Your task to perform on an android device: make emails show in primary in the gmail app Image 0: 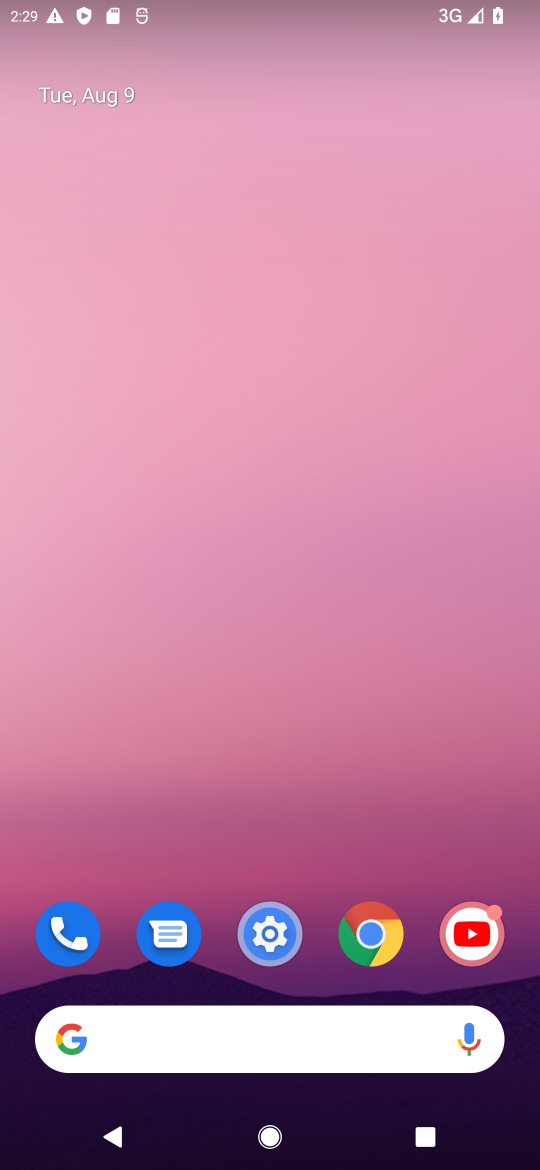
Step 0: drag from (322, 993) to (327, 95)
Your task to perform on an android device: make emails show in primary in the gmail app Image 1: 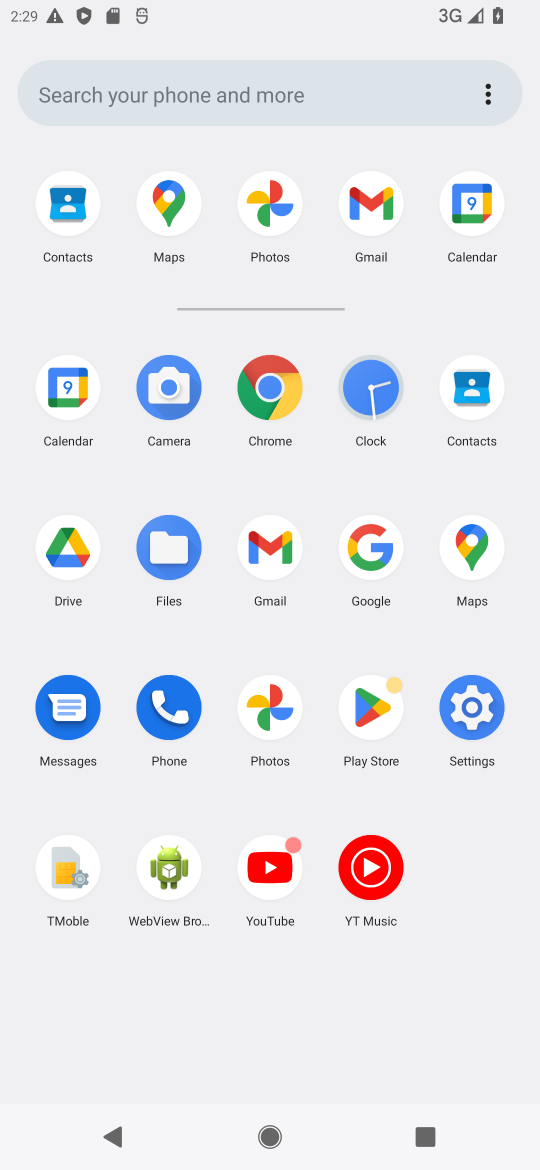
Step 1: click (295, 592)
Your task to perform on an android device: make emails show in primary in the gmail app Image 2: 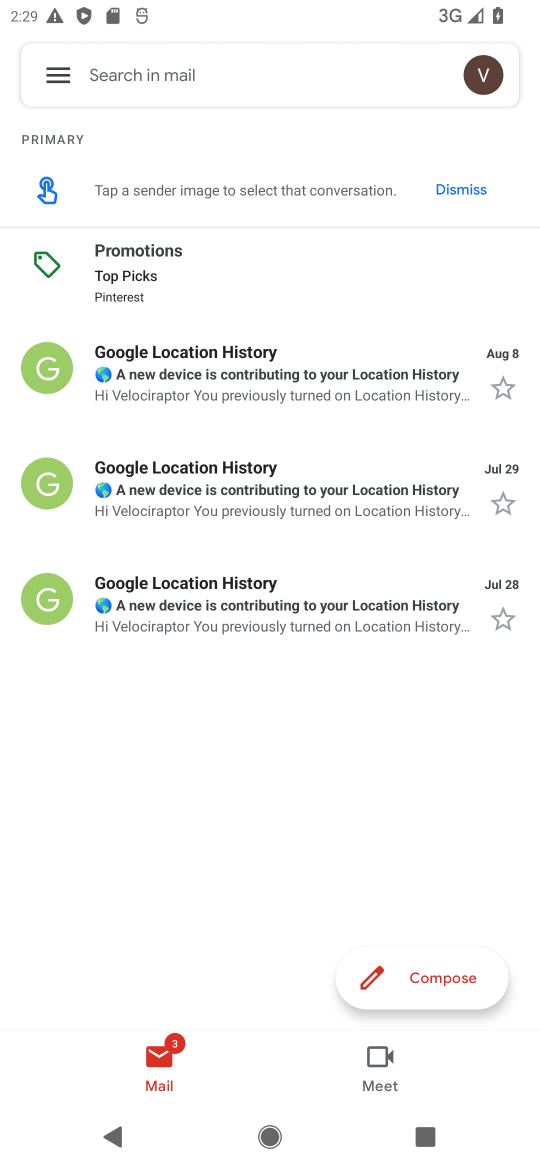
Step 2: click (67, 101)
Your task to perform on an android device: make emails show in primary in the gmail app Image 3: 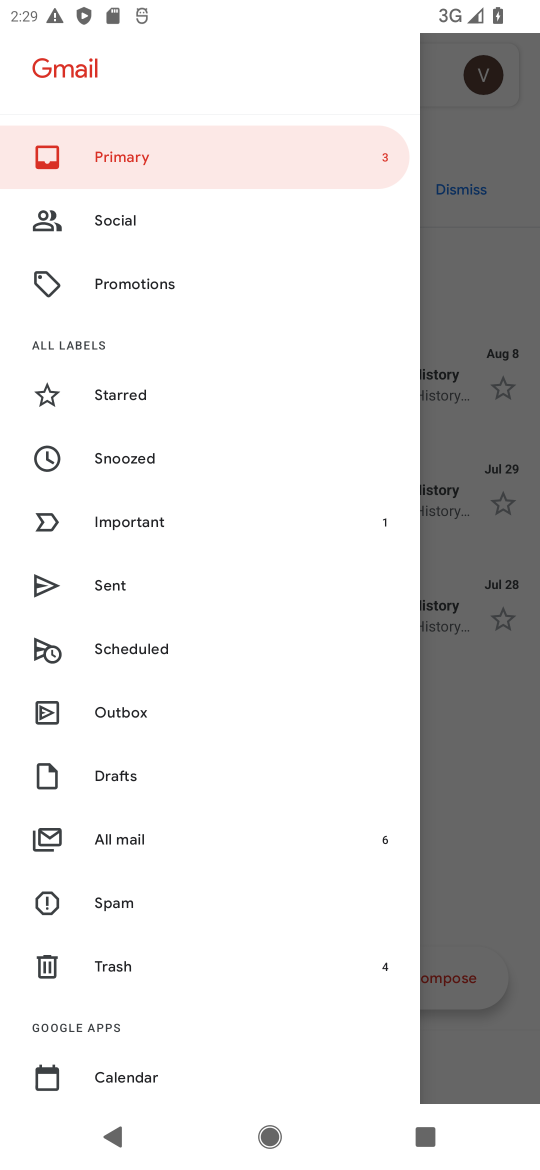
Step 3: task complete